Your task to perform on an android device: toggle notification dots Image 0: 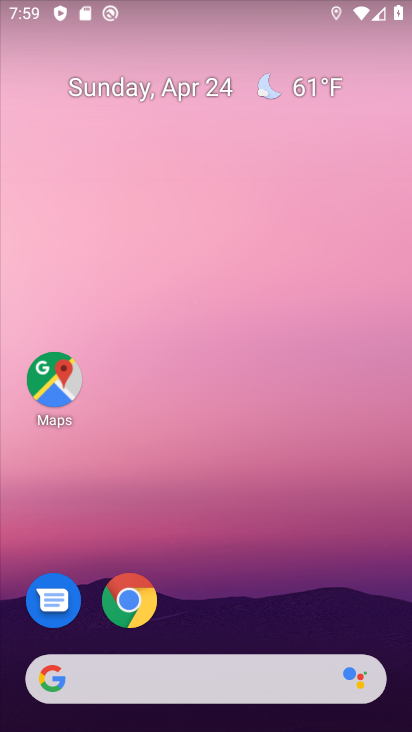
Step 0: drag from (229, 726) to (226, 68)
Your task to perform on an android device: toggle notification dots Image 1: 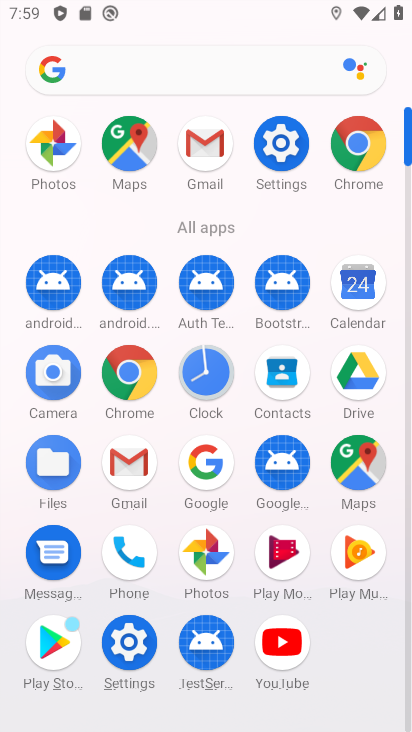
Step 1: click (272, 148)
Your task to perform on an android device: toggle notification dots Image 2: 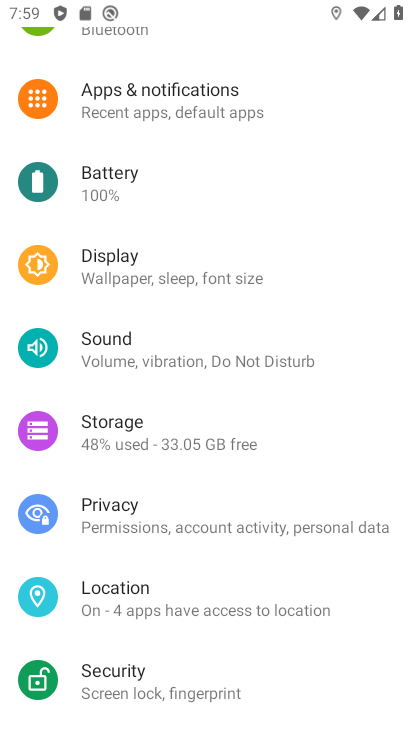
Step 2: click (165, 96)
Your task to perform on an android device: toggle notification dots Image 3: 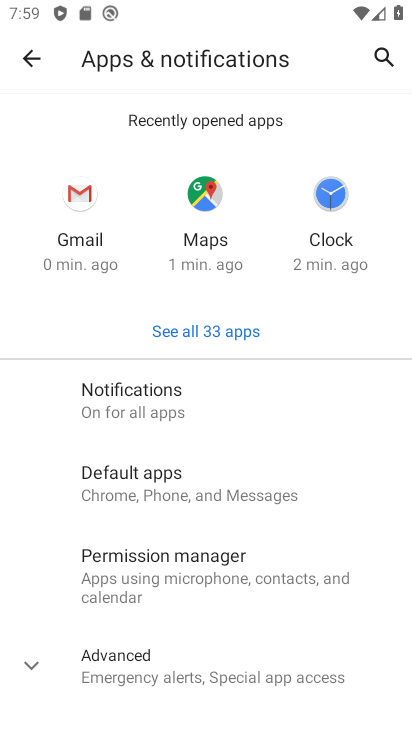
Step 3: click (137, 407)
Your task to perform on an android device: toggle notification dots Image 4: 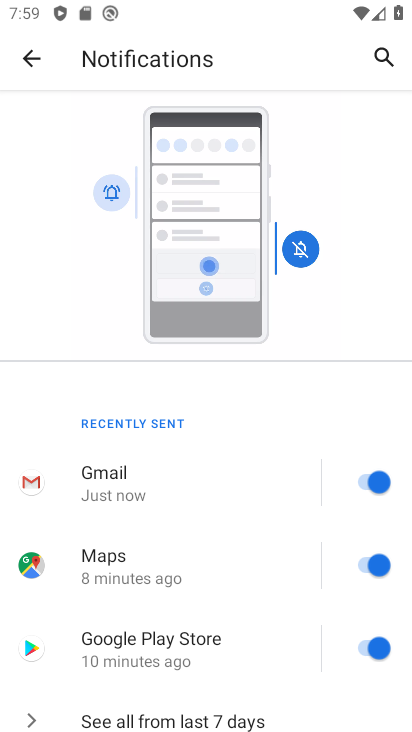
Step 4: drag from (238, 697) to (258, 383)
Your task to perform on an android device: toggle notification dots Image 5: 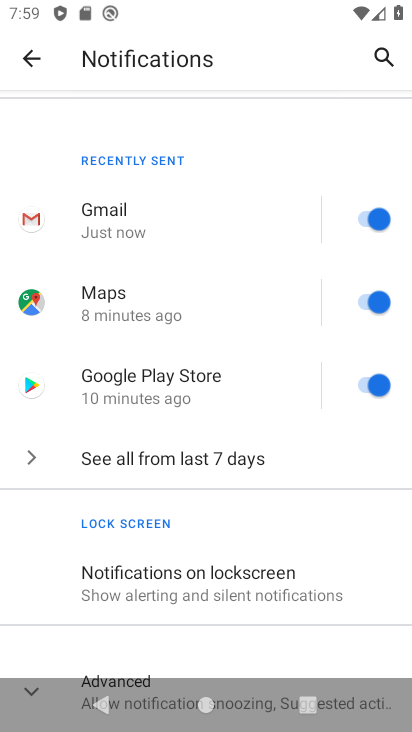
Step 5: drag from (234, 659) to (253, 347)
Your task to perform on an android device: toggle notification dots Image 6: 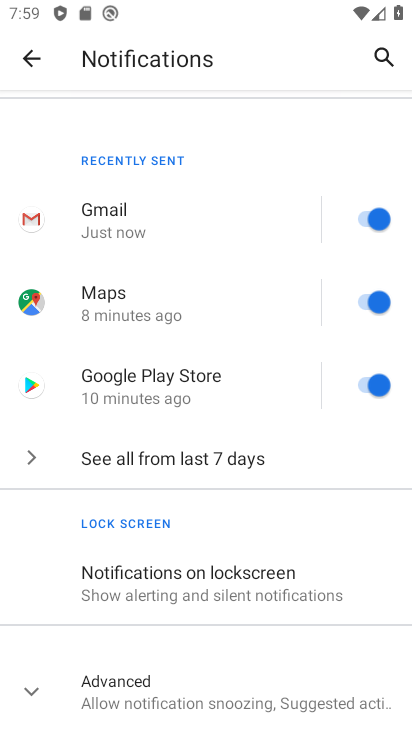
Step 6: click (136, 682)
Your task to perform on an android device: toggle notification dots Image 7: 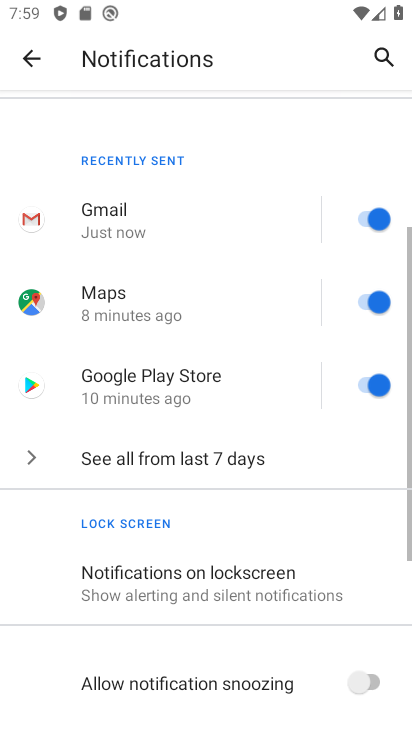
Step 7: drag from (243, 658) to (247, 301)
Your task to perform on an android device: toggle notification dots Image 8: 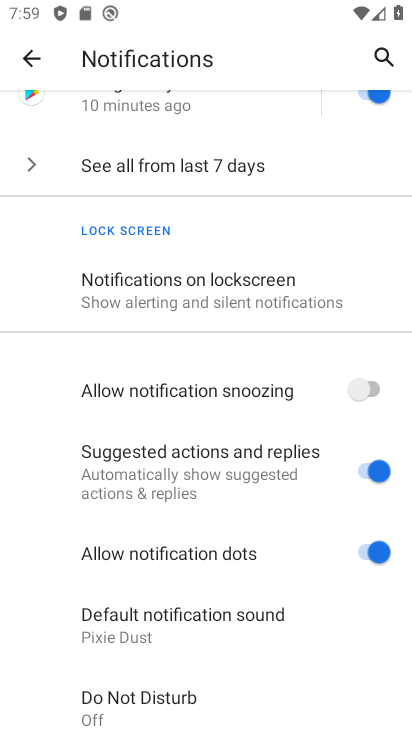
Step 8: click (360, 548)
Your task to perform on an android device: toggle notification dots Image 9: 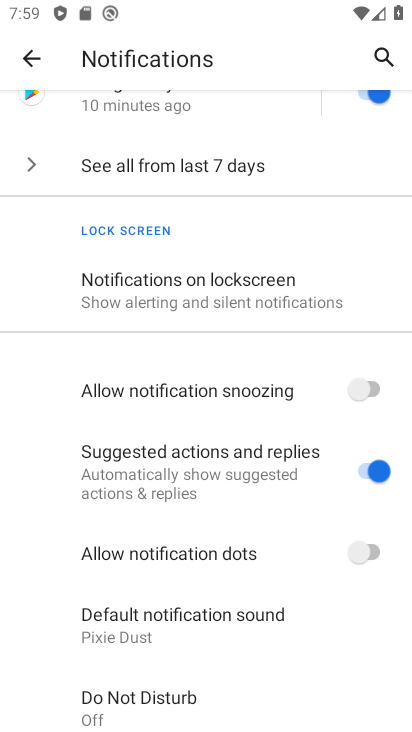
Step 9: task complete